Your task to perform on an android device: open wifi settings Image 0: 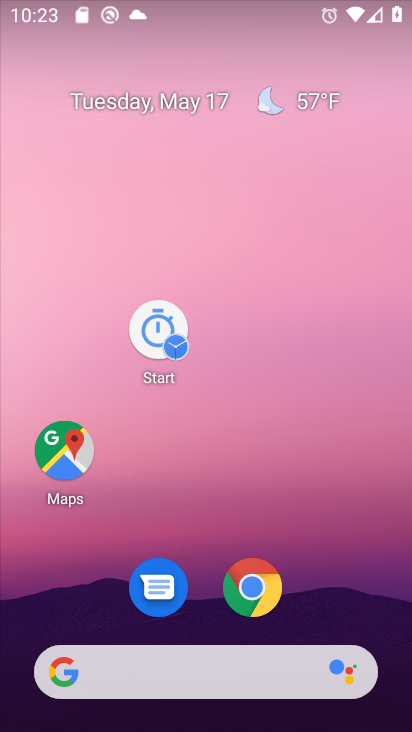
Step 0: drag from (187, 655) to (178, 592)
Your task to perform on an android device: open wifi settings Image 1: 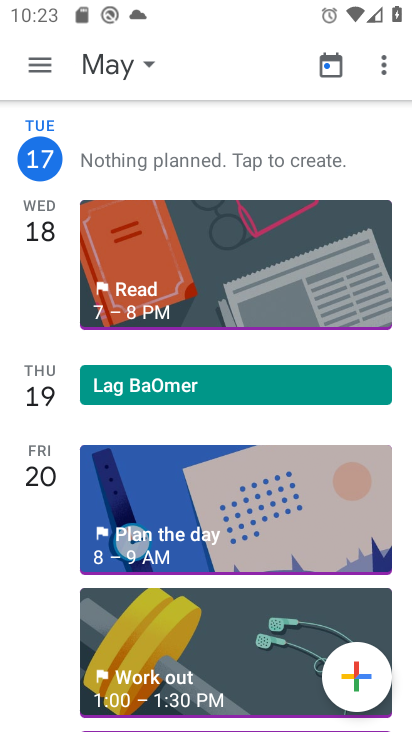
Step 1: press back button
Your task to perform on an android device: open wifi settings Image 2: 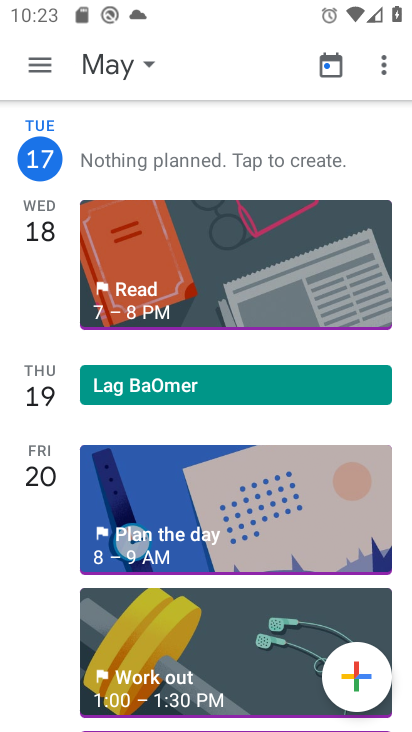
Step 2: click (178, 592)
Your task to perform on an android device: open wifi settings Image 3: 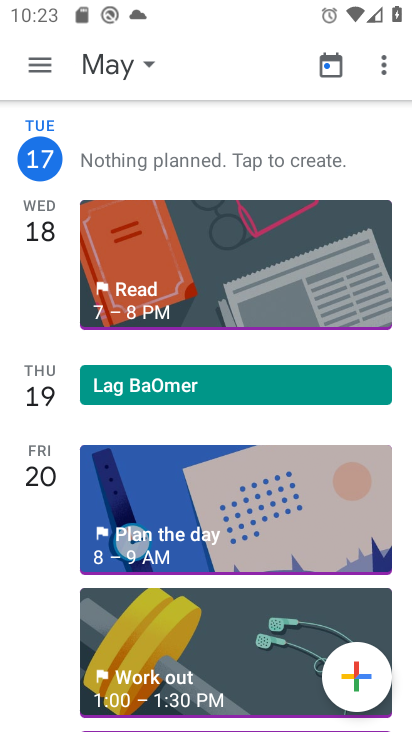
Step 3: press home button
Your task to perform on an android device: open wifi settings Image 4: 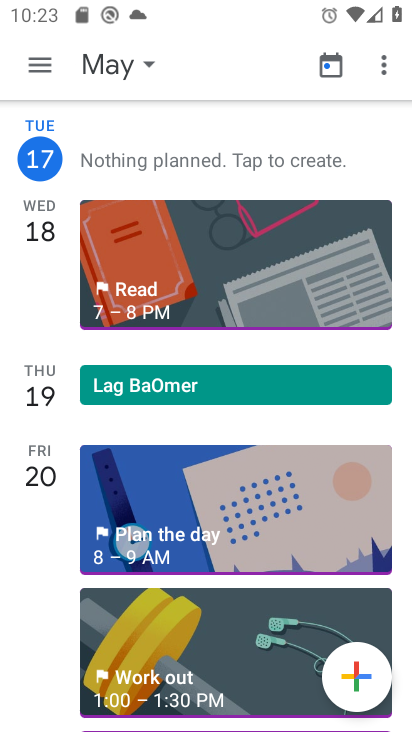
Step 4: drag from (178, 592) to (256, 12)
Your task to perform on an android device: open wifi settings Image 5: 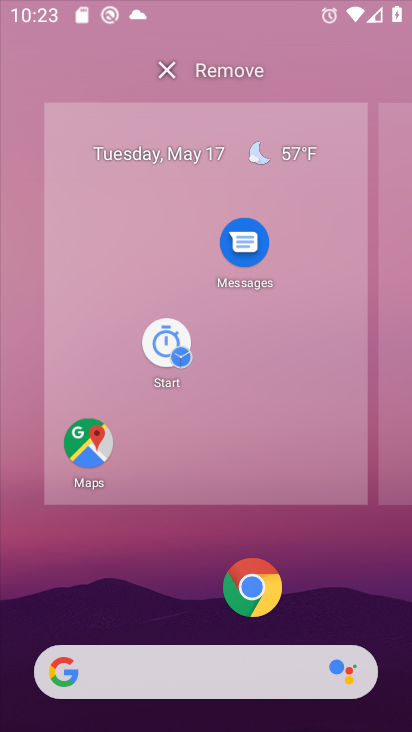
Step 5: drag from (169, 538) to (94, 76)
Your task to perform on an android device: open wifi settings Image 6: 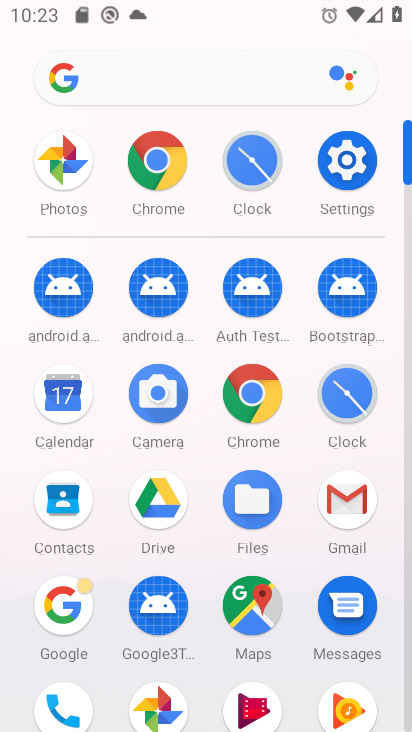
Step 6: drag from (239, 499) to (164, 38)
Your task to perform on an android device: open wifi settings Image 7: 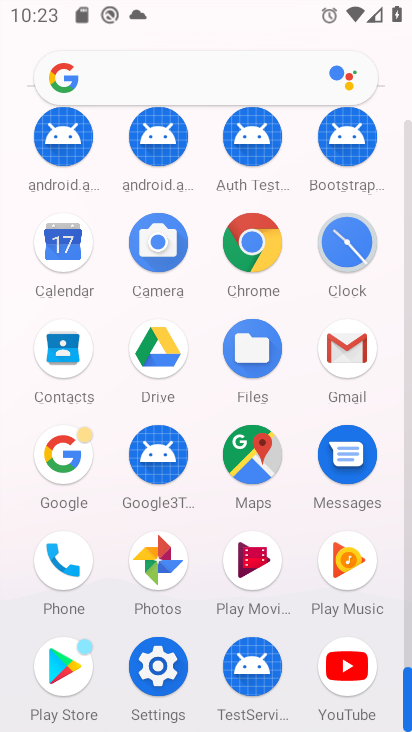
Step 7: click (338, 135)
Your task to perform on an android device: open wifi settings Image 8: 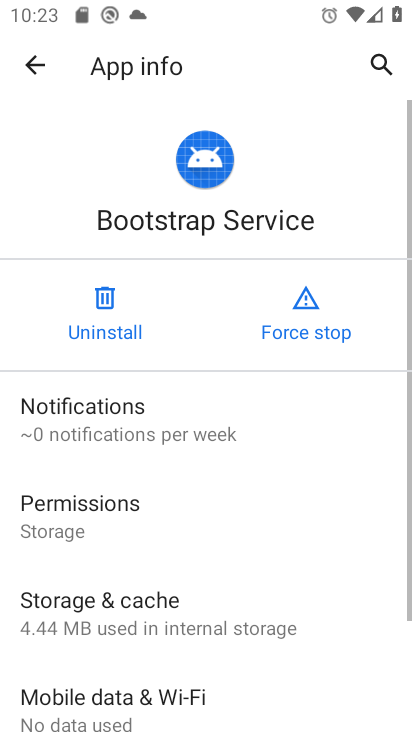
Step 8: press back button
Your task to perform on an android device: open wifi settings Image 9: 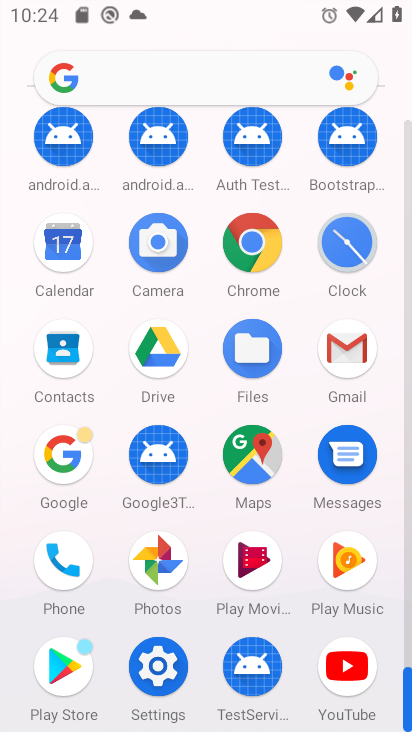
Step 9: click (167, 659)
Your task to perform on an android device: open wifi settings Image 10: 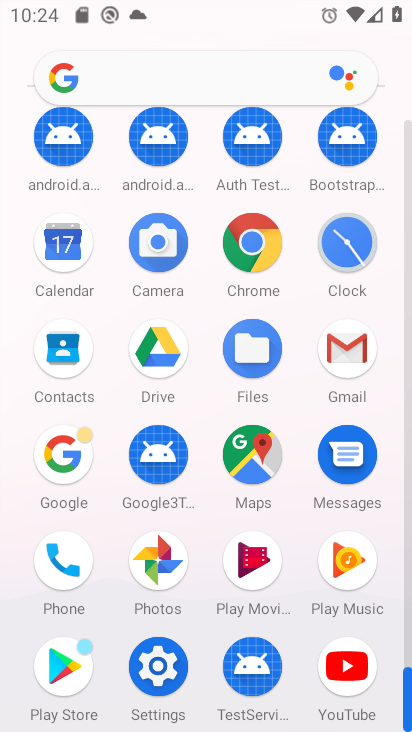
Step 10: click (167, 659)
Your task to perform on an android device: open wifi settings Image 11: 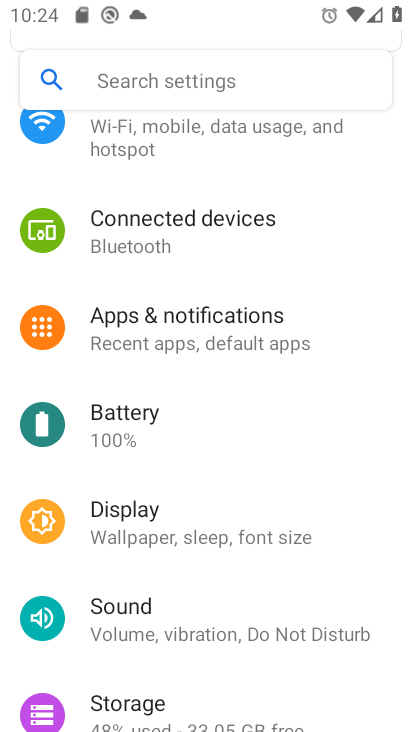
Step 11: click (145, 132)
Your task to perform on an android device: open wifi settings Image 12: 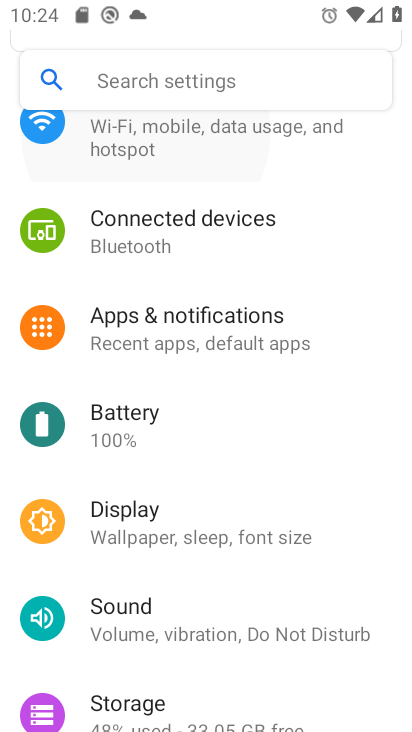
Step 12: click (145, 132)
Your task to perform on an android device: open wifi settings Image 13: 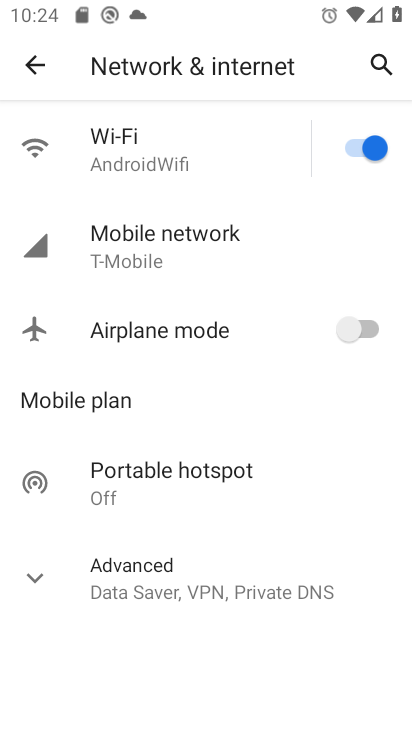
Step 13: task complete